Your task to perform on an android device: Do I have any events today? Image 0: 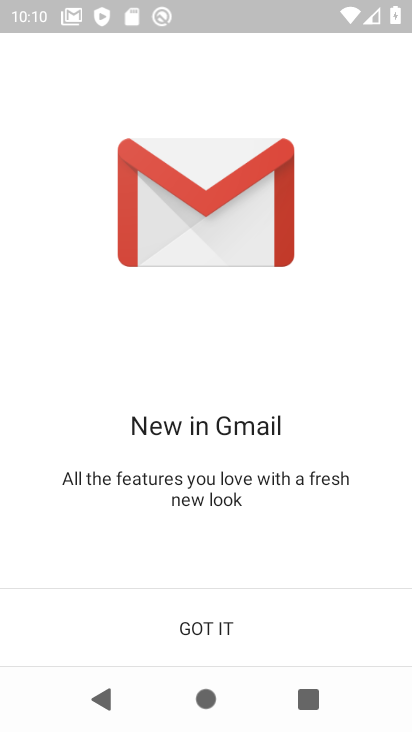
Step 0: press home button
Your task to perform on an android device: Do I have any events today? Image 1: 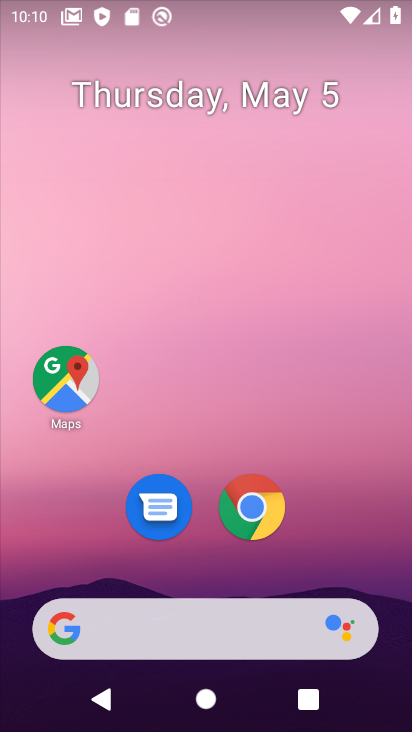
Step 1: drag from (345, 563) to (362, 13)
Your task to perform on an android device: Do I have any events today? Image 2: 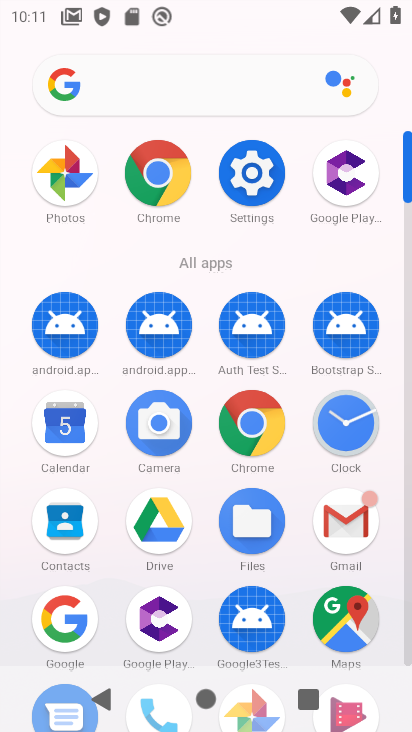
Step 2: click (72, 436)
Your task to perform on an android device: Do I have any events today? Image 3: 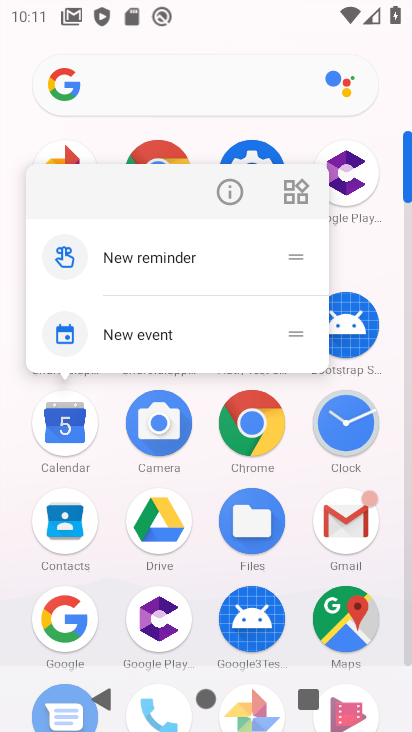
Step 3: click (72, 436)
Your task to perform on an android device: Do I have any events today? Image 4: 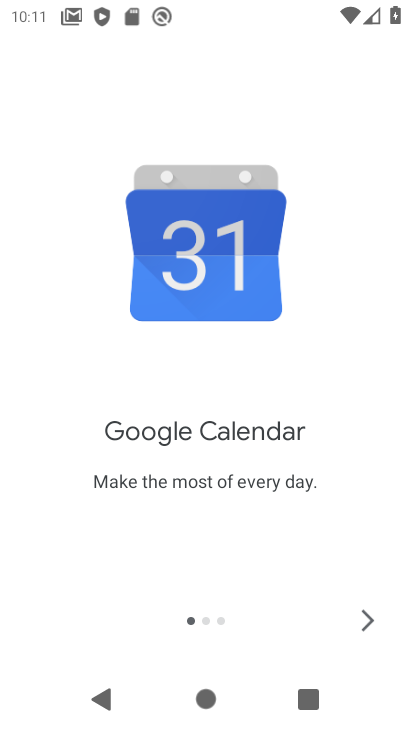
Step 4: click (368, 630)
Your task to perform on an android device: Do I have any events today? Image 5: 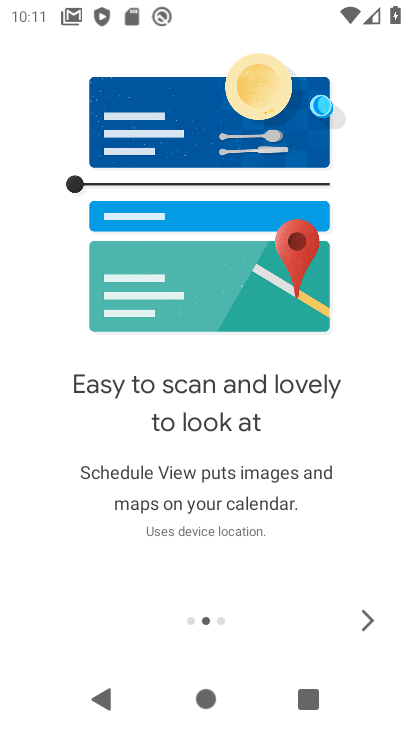
Step 5: click (368, 630)
Your task to perform on an android device: Do I have any events today? Image 6: 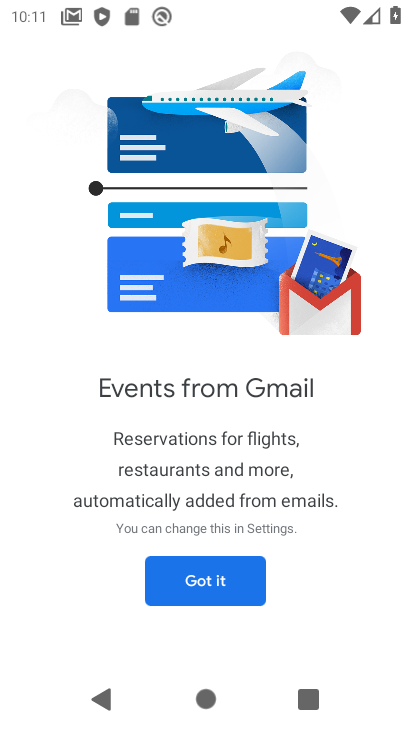
Step 6: click (195, 582)
Your task to perform on an android device: Do I have any events today? Image 7: 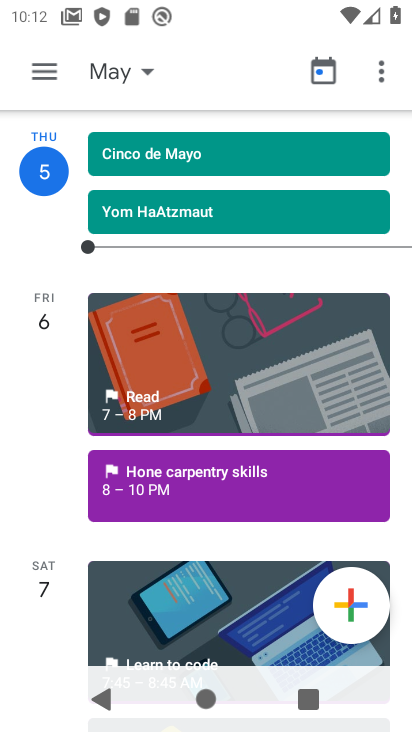
Step 7: click (151, 75)
Your task to perform on an android device: Do I have any events today? Image 8: 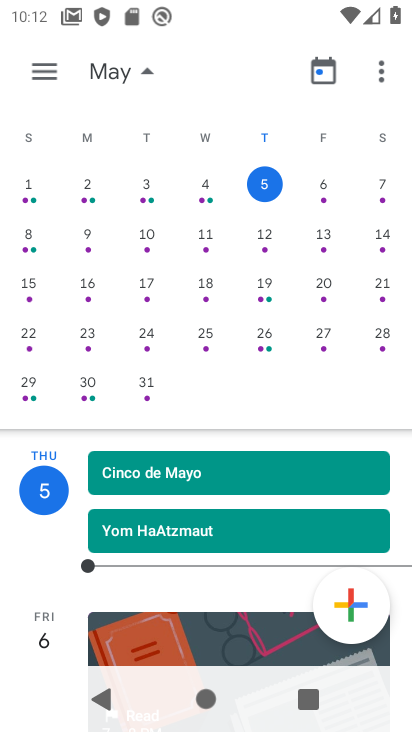
Step 8: click (40, 73)
Your task to perform on an android device: Do I have any events today? Image 9: 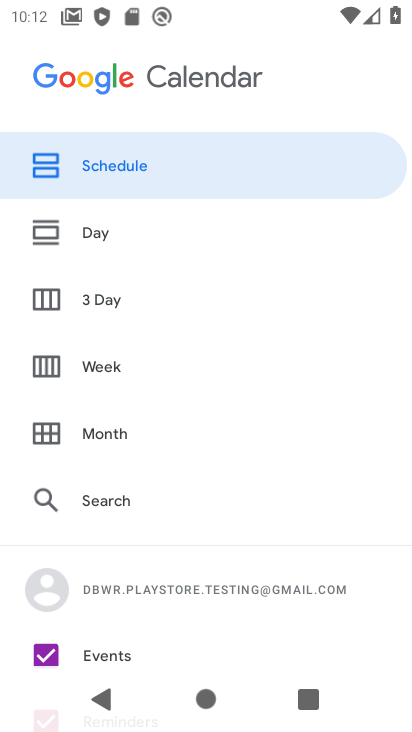
Step 9: drag from (151, 529) to (176, 297)
Your task to perform on an android device: Do I have any events today? Image 10: 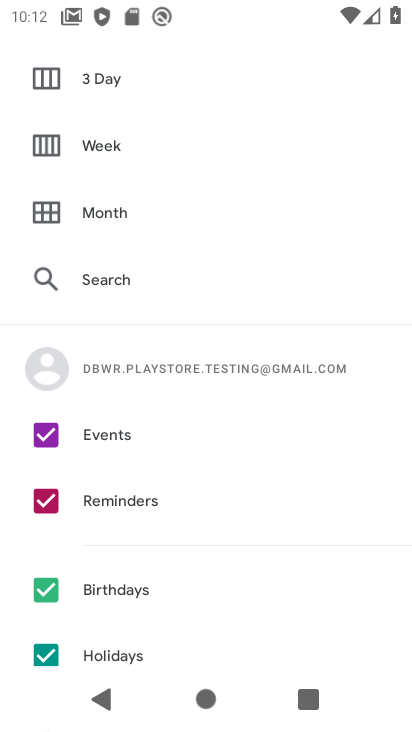
Step 10: click (41, 498)
Your task to perform on an android device: Do I have any events today? Image 11: 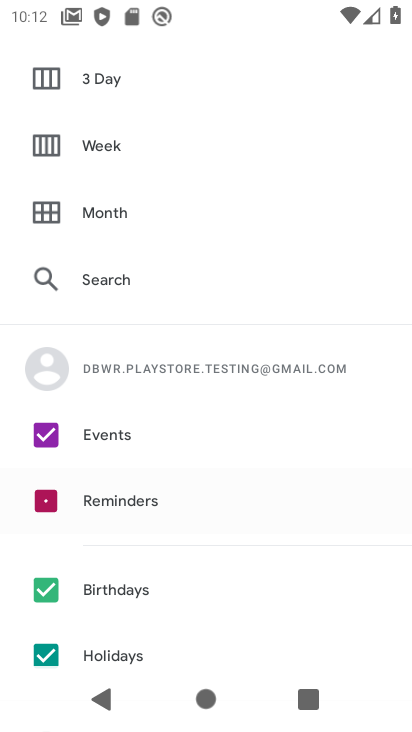
Step 11: click (48, 591)
Your task to perform on an android device: Do I have any events today? Image 12: 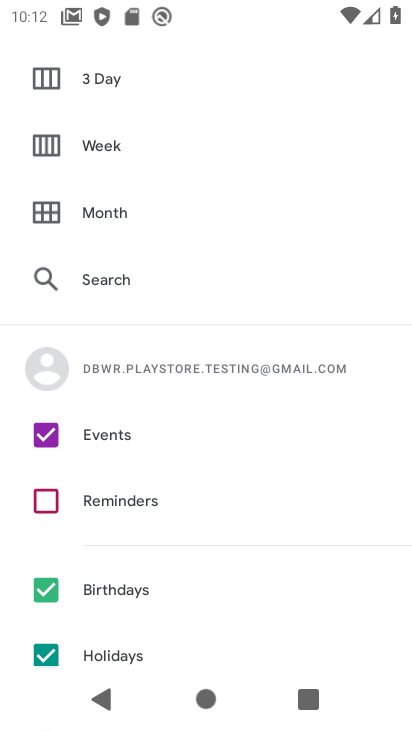
Step 12: click (42, 656)
Your task to perform on an android device: Do I have any events today? Image 13: 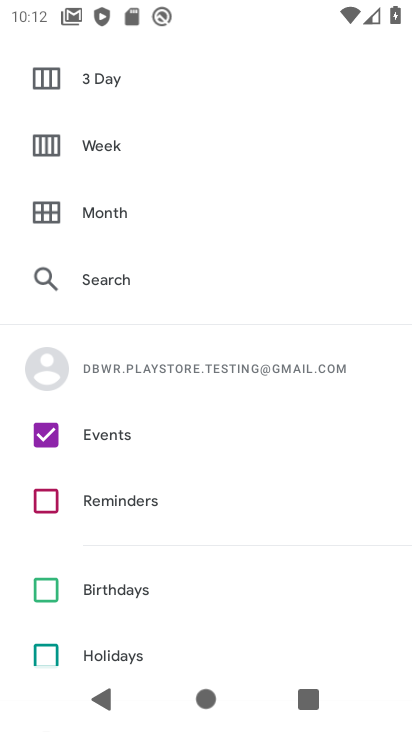
Step 13: drag from (239, 271) to (232, 561)
Your task to perform on an android device: Do I have any events today? Image 14: 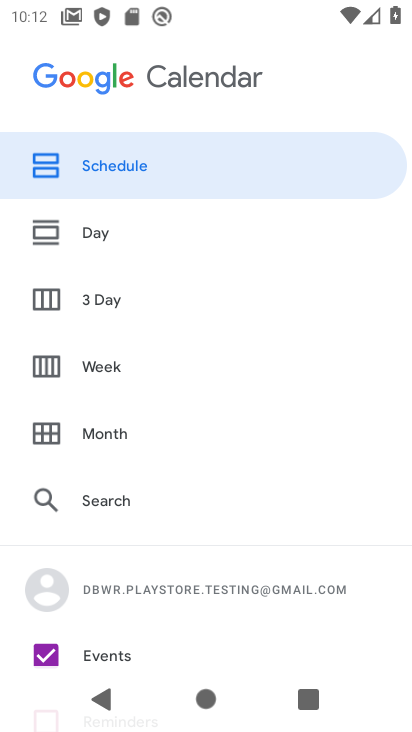
Step 14: click (39, 169)
Your task to perform on an android device: Do I have any events today? Image 15: 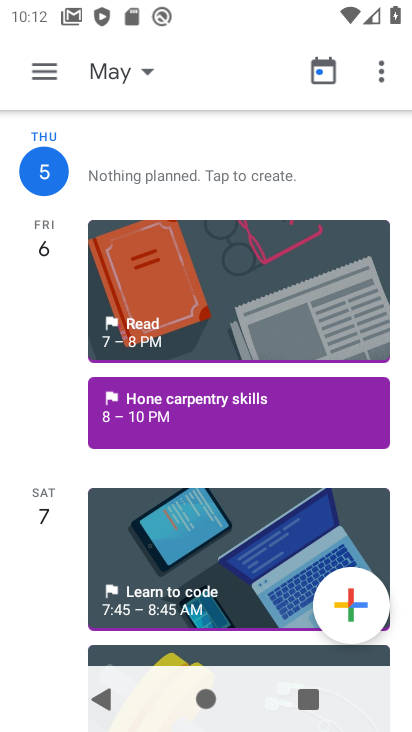
Step 15: task complete